Your task to perform on an android device: turn off location history Image 0: 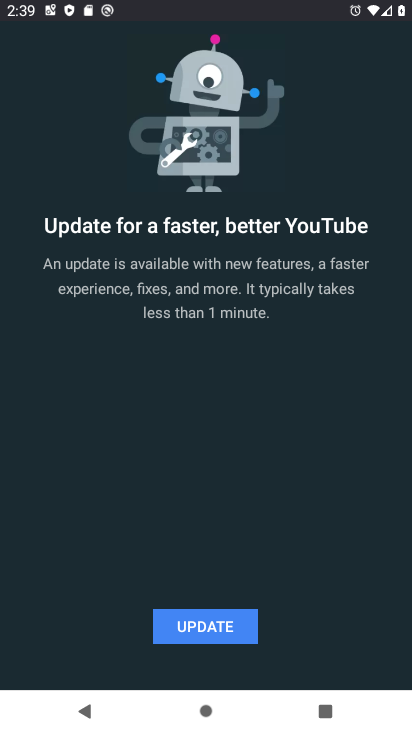
Step 0: press back button
Your task to perform on an android device: turn off location history Image 1: 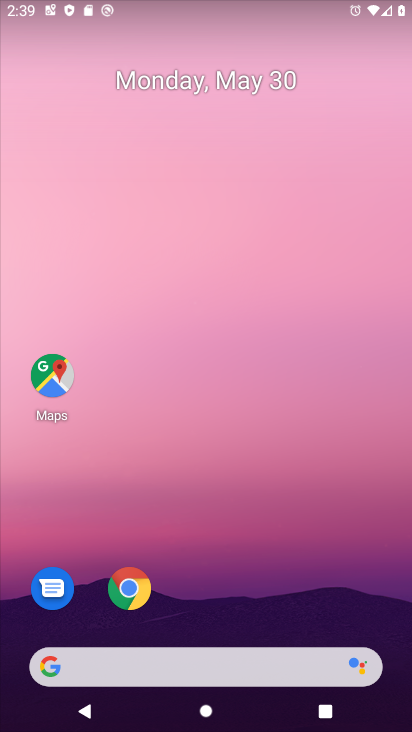
Step 1: drag from (358, 602) to (374, 76)
Your task to perform on an android device: turn off location history Image 2: 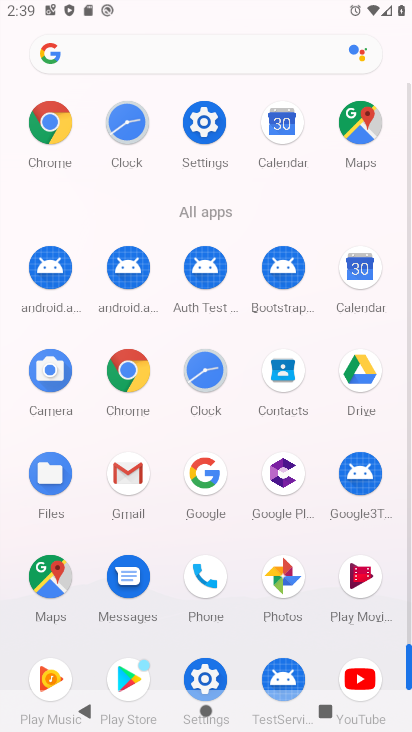
Step 2: click (211, 669)
Your task to perform on an android device: turn off location history Image 3: 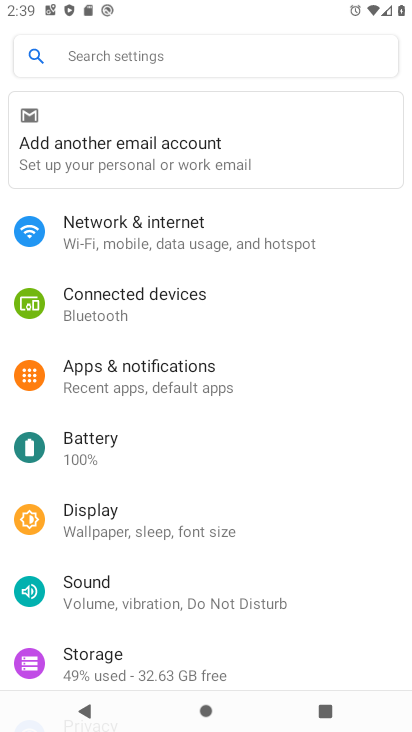
Step 3: drag from (184, 530) to (211, 214)
Your task to perform on an android device: turn off location history Image 4: 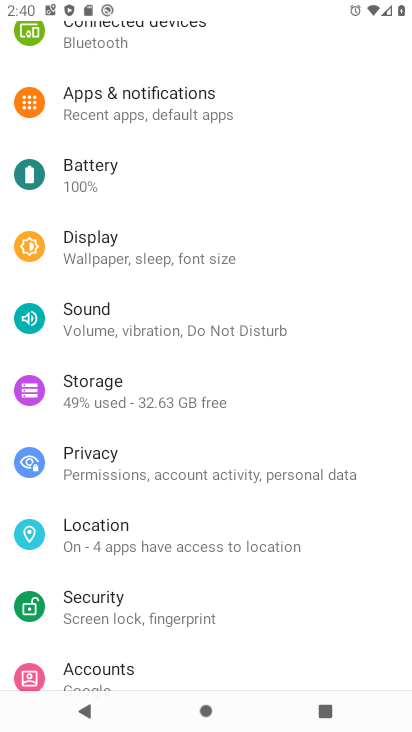
Step 4: click (225, 536)
Your task to perform on an android device: turn off location history Image 5: 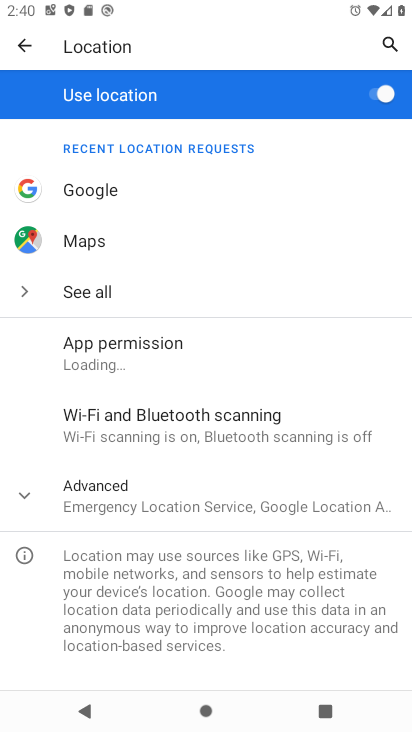
Step 5: click (154, 504)
Your task to perform on an android device: turn off location history Image 6: 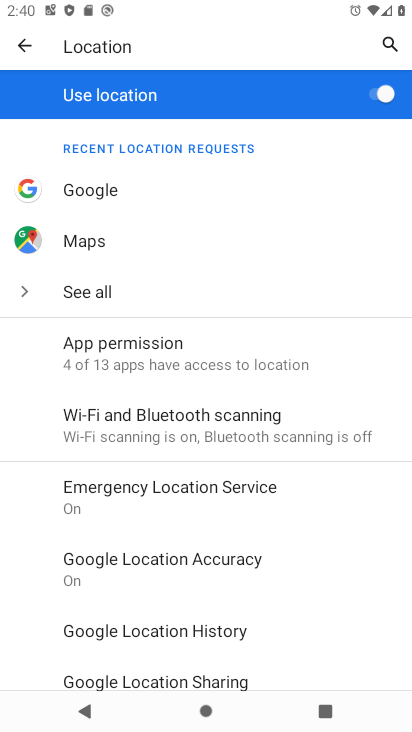
Step 6: click (183, 640)
Your task to perform on an android device: turn off location history Image 7: 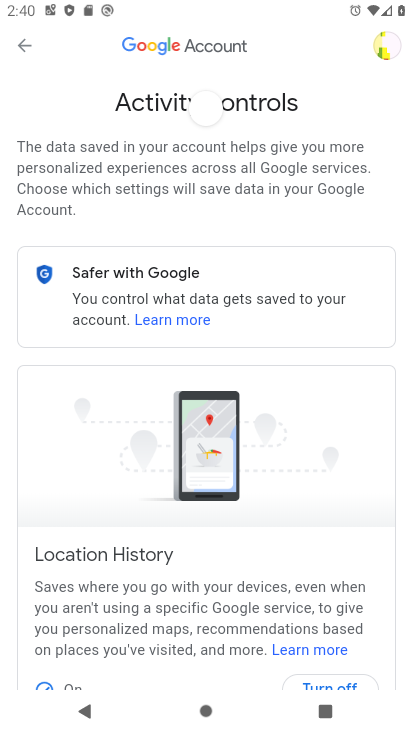
Step 7: drag from (203, 626) to (203, 375)
Your task to perform on an android device: turn off location history Image 8: 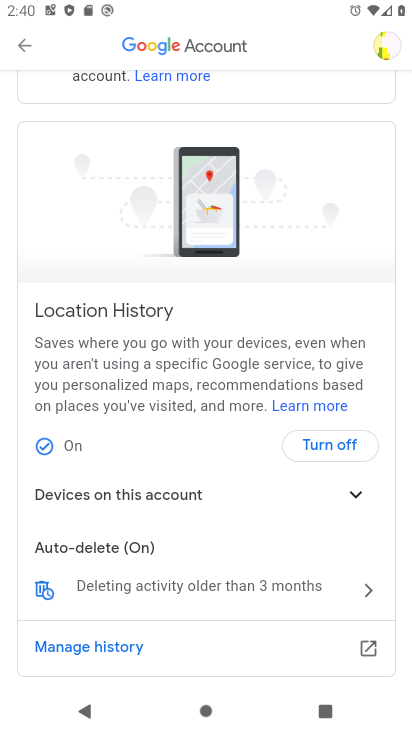
Step 8: click (316, 443)
Your task to perform on an android device: turn off location history Image 9: 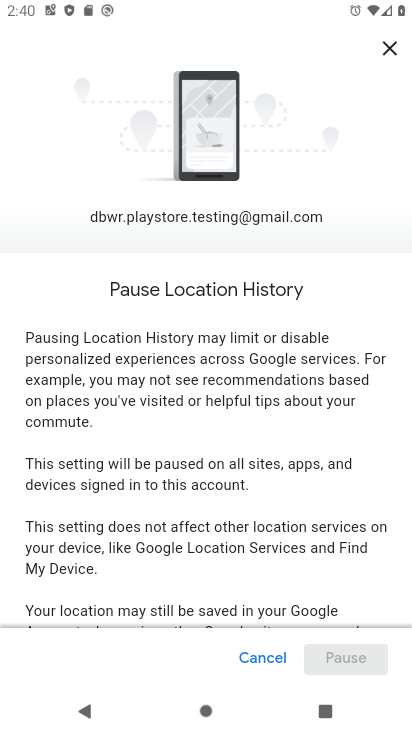
Step 9: drag from (311, 516) to (282, 100)
Your task to perform on an android device: turn off location history Image 10: 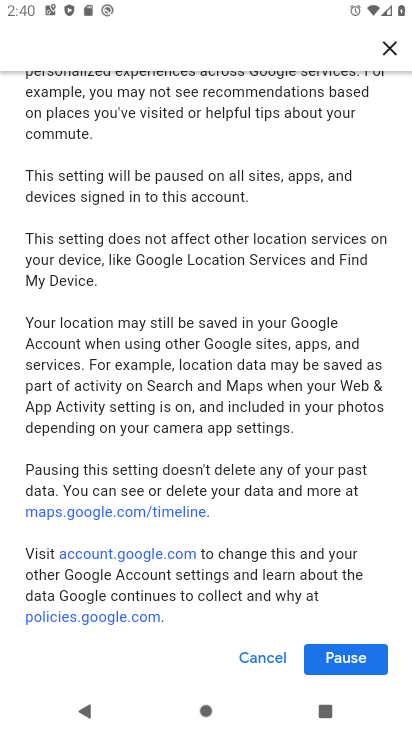
Step 10: click (333, 659)
Your task to perform on an android device: turn off location history Image 11: 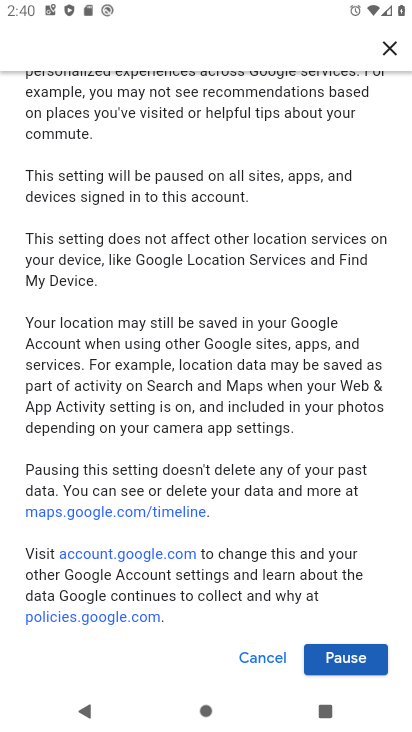
Step 11: click (332, 661)
Your task to perform on an android device: turn off location history Image 12: 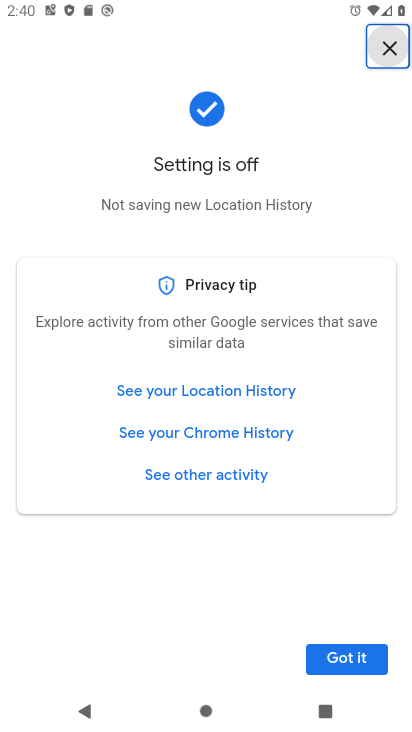
Step 12: click (333, 660)
Your task to perform on an android device: turn off location history Image 13: 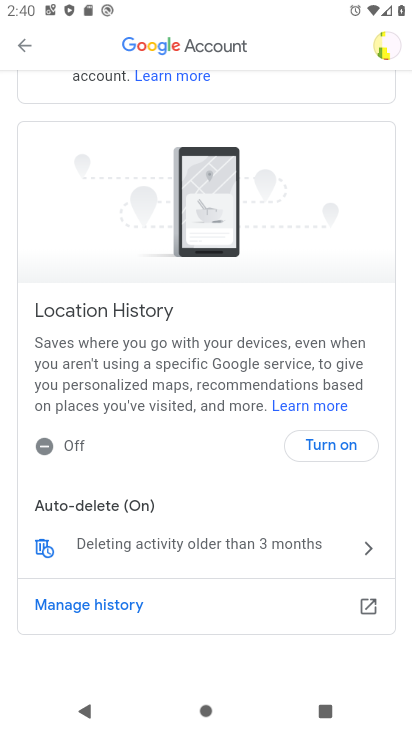
Step 13: task complete